Your task to perform on an android device: check out phone information Image 0: 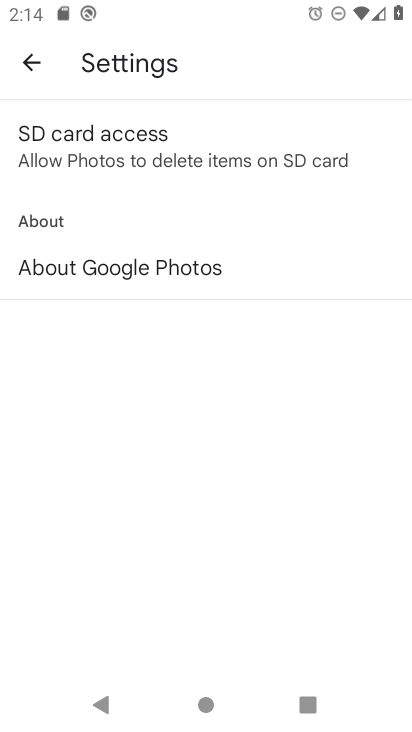
Step 0: press home button
Your task to perform on an android device: check out phone information Image 1: 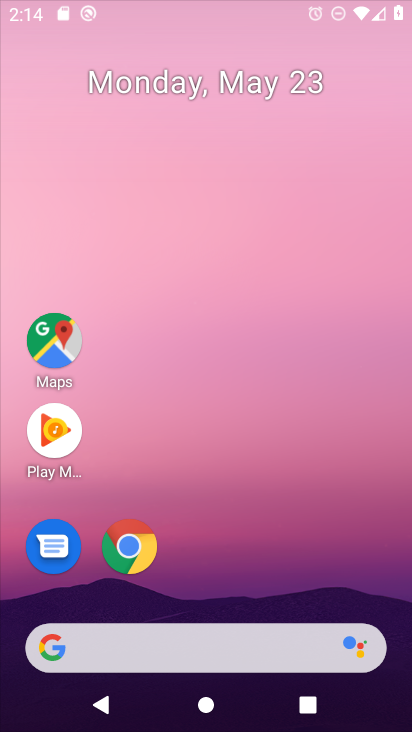
Step 1: drag from (246, 653) to (182, 200)
Your task to perform on an android device: check out phone information Image 2: 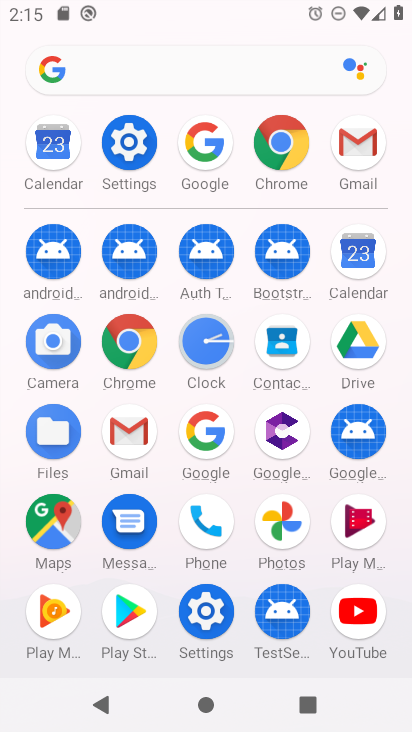
Step 2: click (141, 165)
Your task to perform on an android device: check out phone information Image 3: 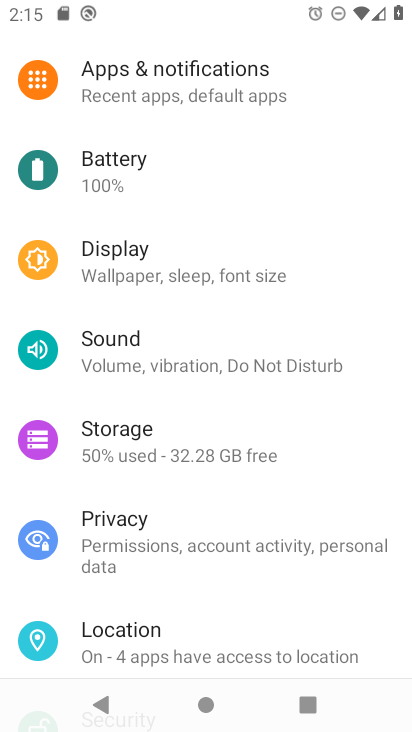
Step 3: drag from (193, 541) to (130, 220)
Your task to perform on an android device: check out phone information Image 4: 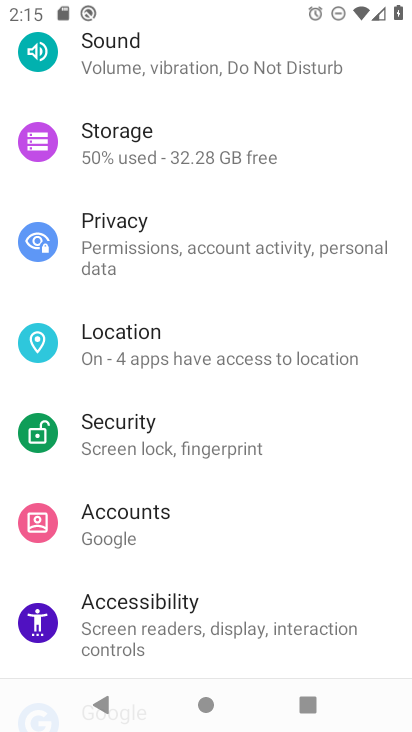
Step 4: drag from (151, 590) to (96, 185)
Your task to perform on an android device: check out phone information Image 5: 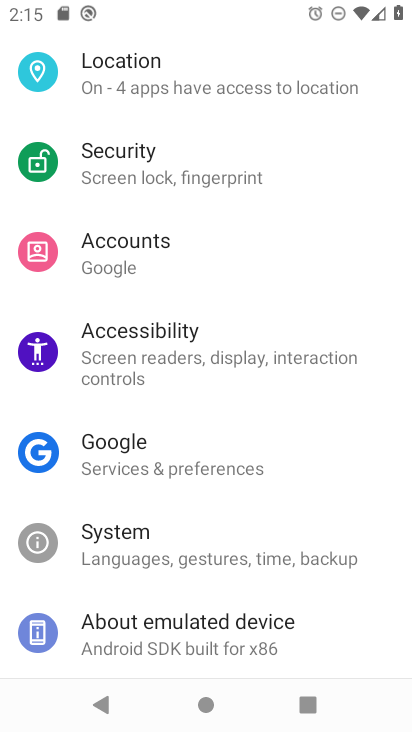
Step 5: drag from (170, 540) to (157, 203)
Your task to perform on an android device: check out phone information Image 6: 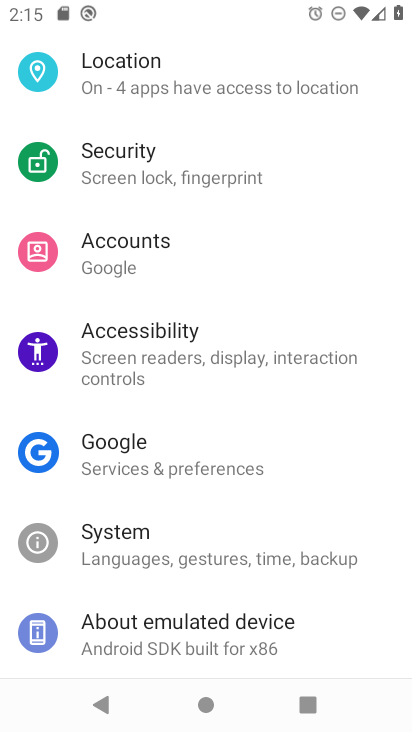
Step 6: drag from (176, 543) to (138, 231)
Your task to perform on an android device: check out phone information Image 7: 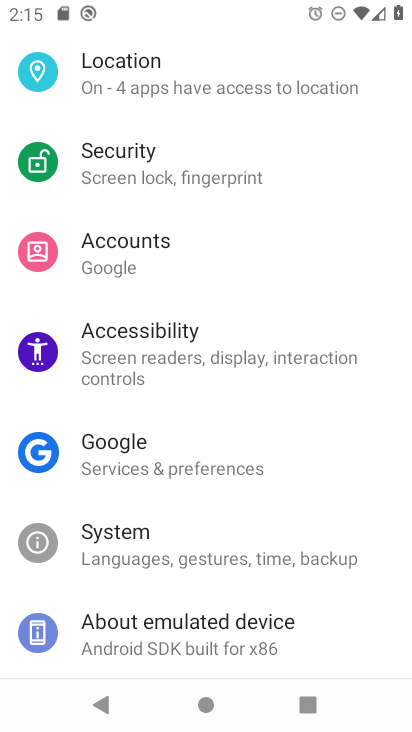
Step 7: click (185, 629)
Your task to perform on an android device: check out phone information Image 8: 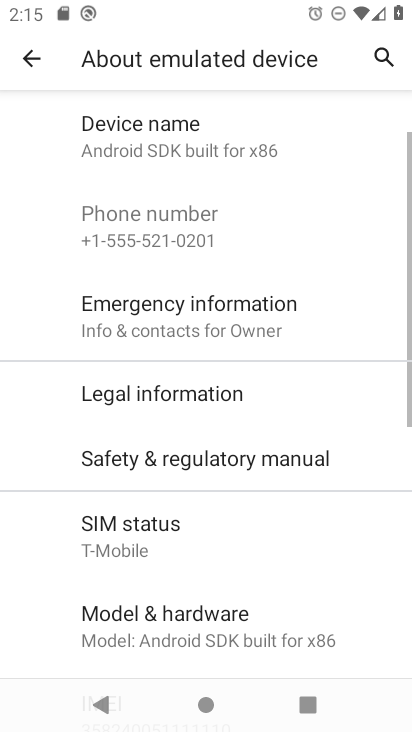
Step 8: task complete